Your task to perform on an android device: Open the calendar app, open the side menu, and click the "Day" option Image 0: 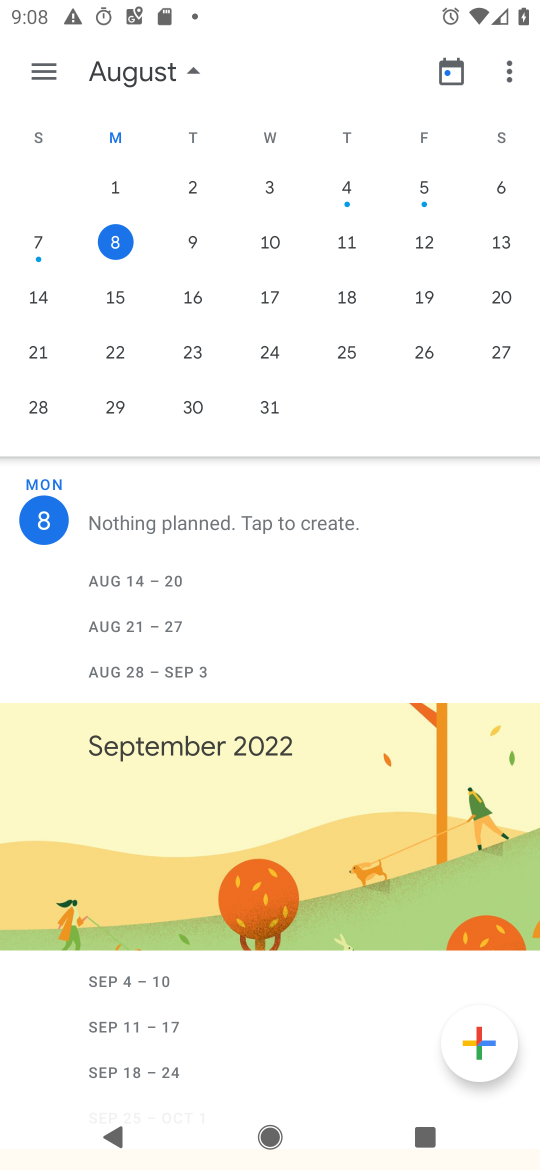
Step 0: press home button
Your task to perform on an android device: Open the calendar app, open the side menu, and click the "Day" option Image 1: 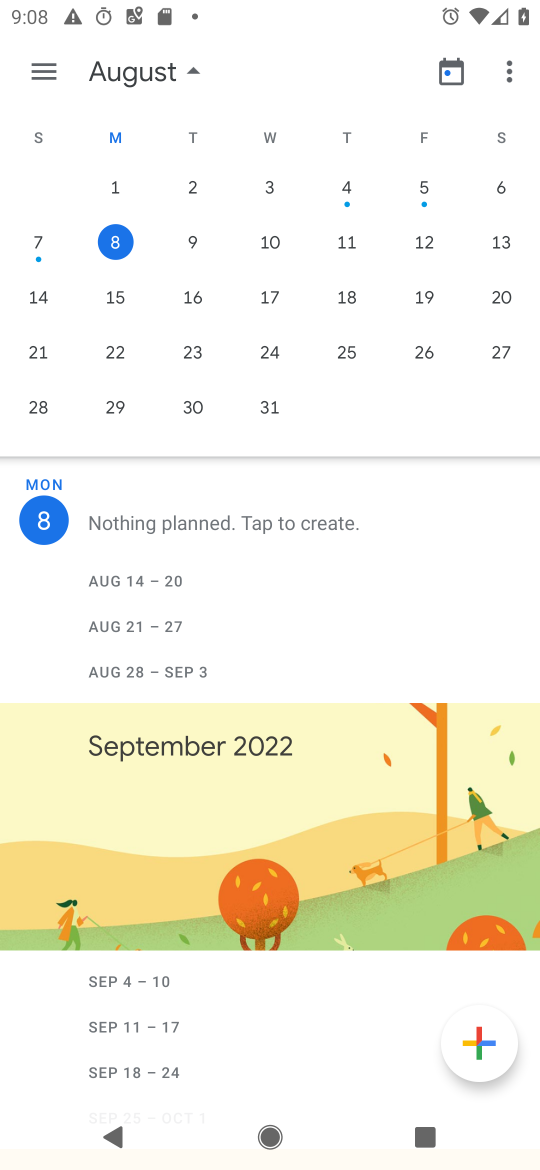
Step 1: press home button
Your task to perform on an android device: Open the calendar app, open the side menu, and click the "Day" option Image 2: 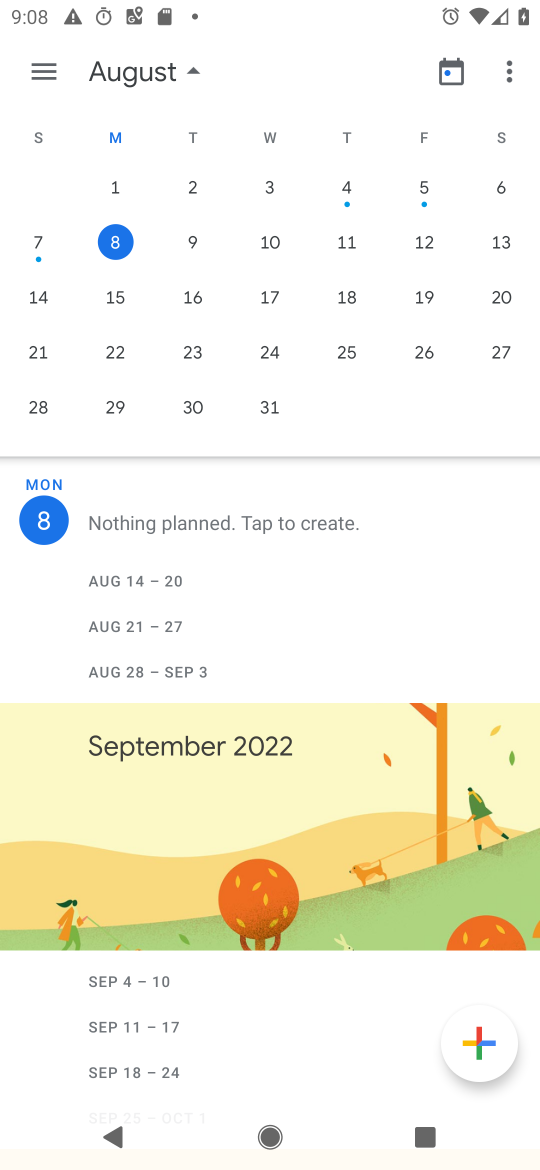
Step 2: click (313, 326)
Your task to perform on an android device: Open the calendar app, open the side menu, and click the "Day" option Image 3: 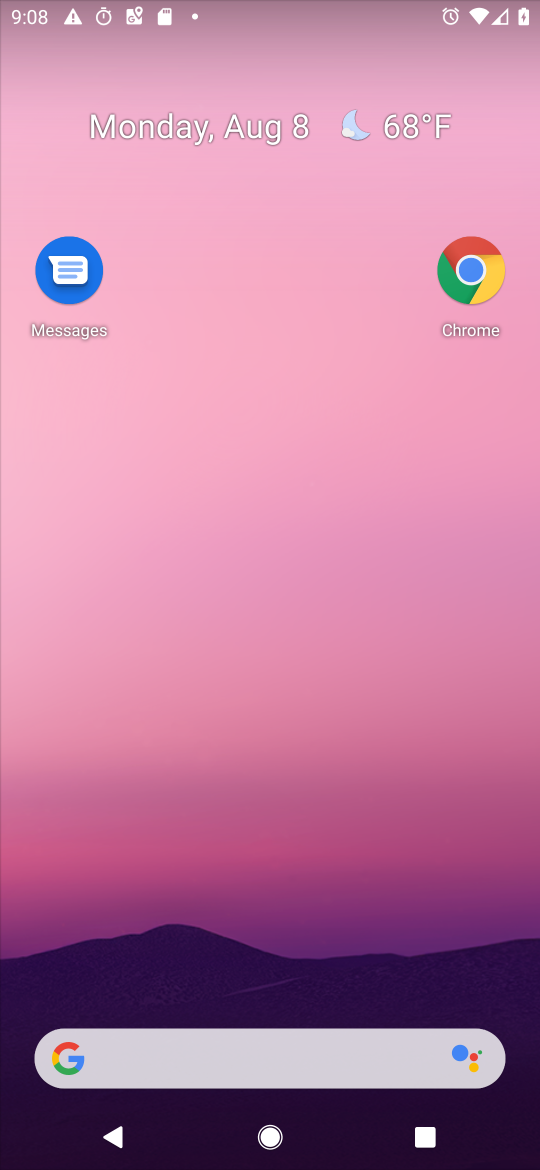
Step 3: drag from (273, 777) to (291, 119)
Your task to perform on an android device: Open the calendar app, open the side menu, and click the "Day" option Image 4: 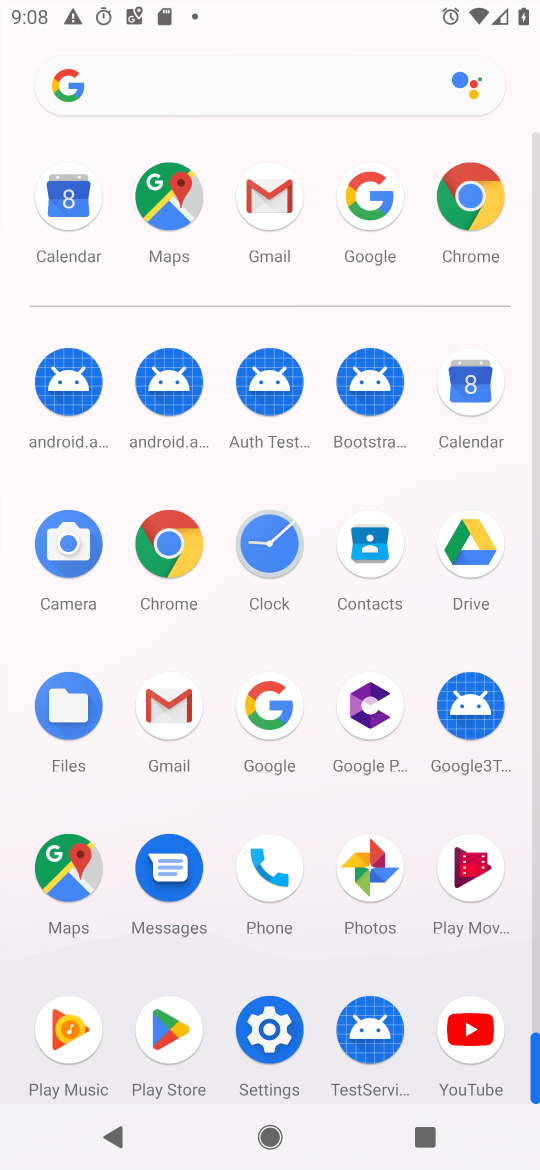
Step 4: click (452, 386)
Your task to perform on an android device: Open the calendar app, open the side menu, and click the "Day" option Image 5: 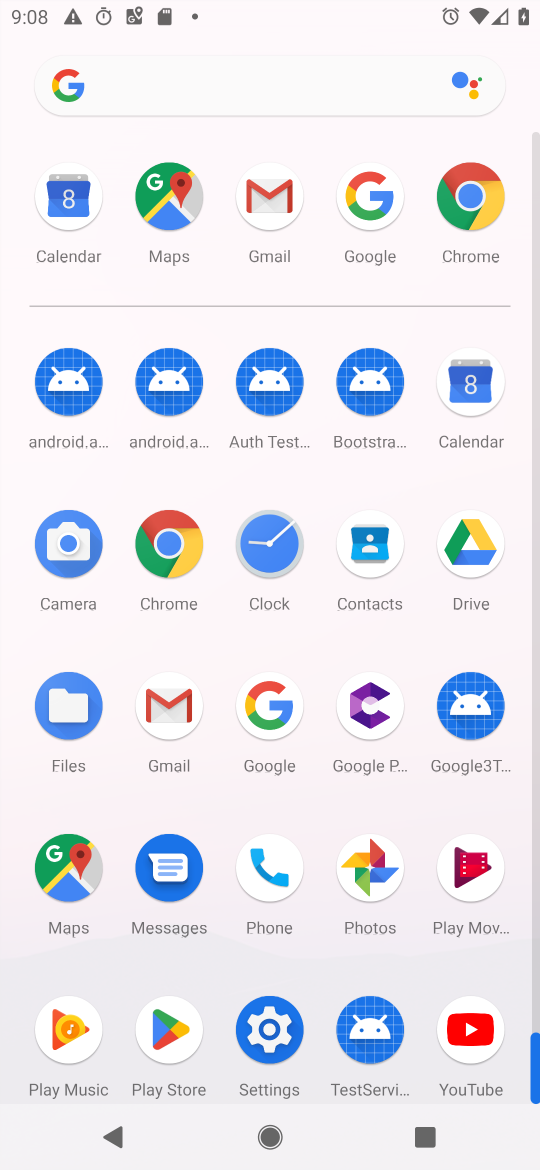
Step 5: click (451, 382)
Your task to perform on an android device: Open the calendar app, open the side menu, and click the "Day" option Image 6: 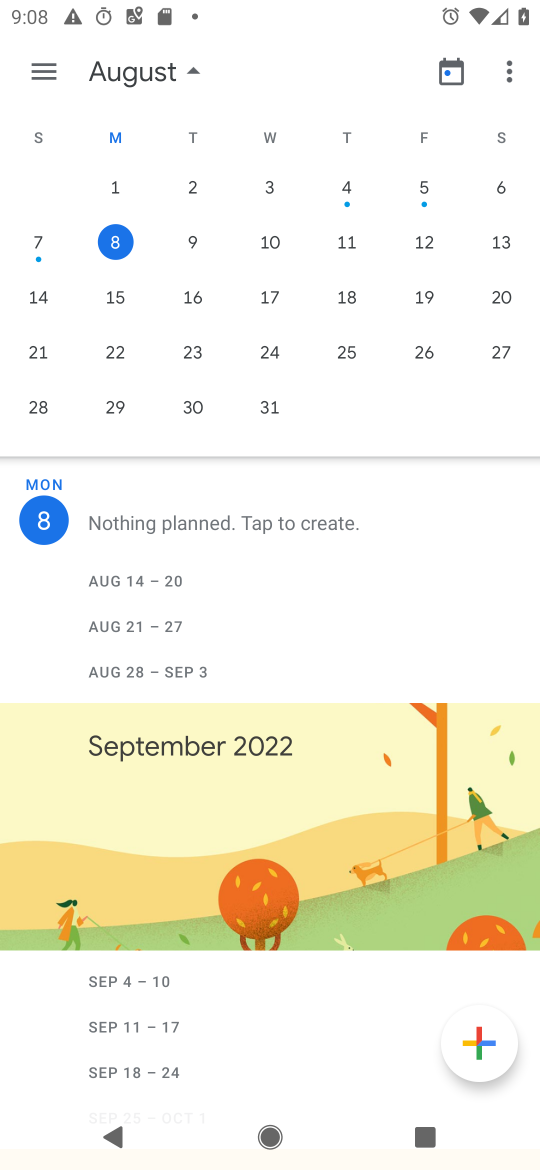
Step 6: click (53, 70)
Your task to perform on an android device: Open the calendar app, open the side menu, and click the "Day" option Image 7: 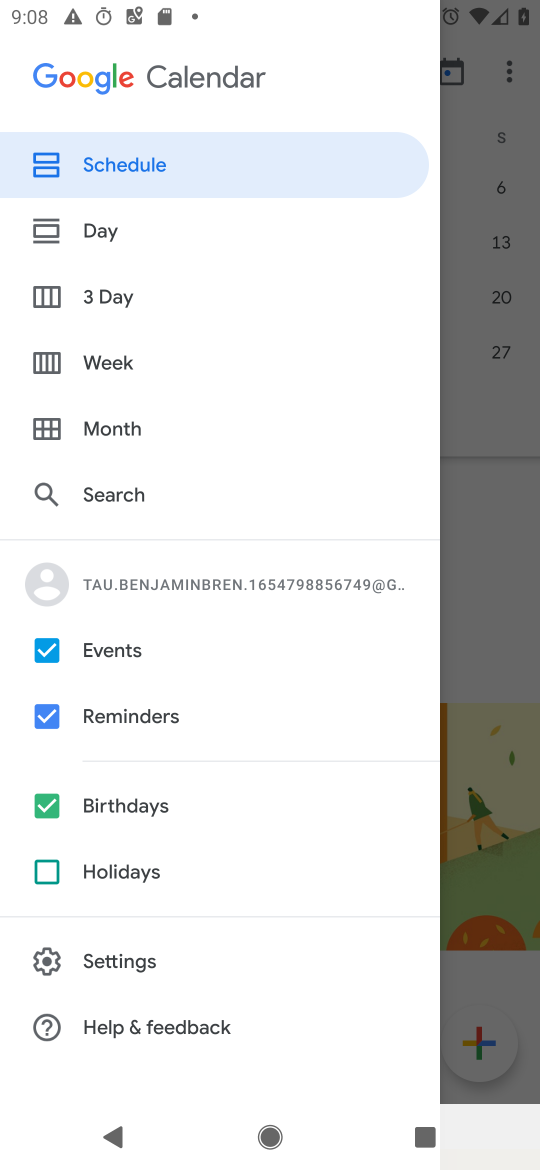
Step 7: click (132, 245)
Your task to perform on an android device: Open the calendar app, open the side menu, and click the "Day" option Image 8: 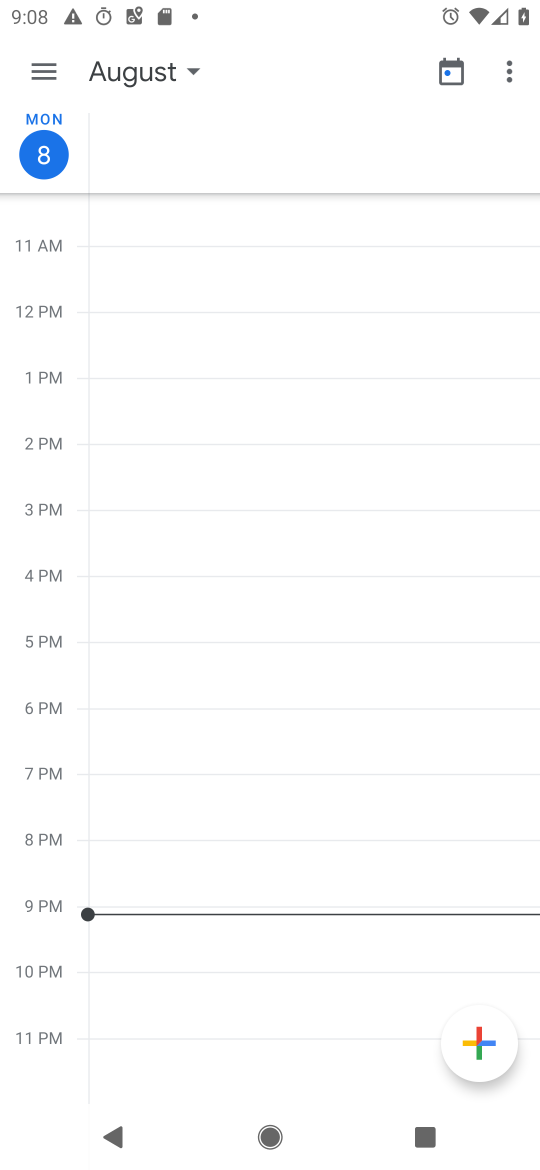
Step 8: task complete